Your task to perform on an android device: turn off location history Image 0: 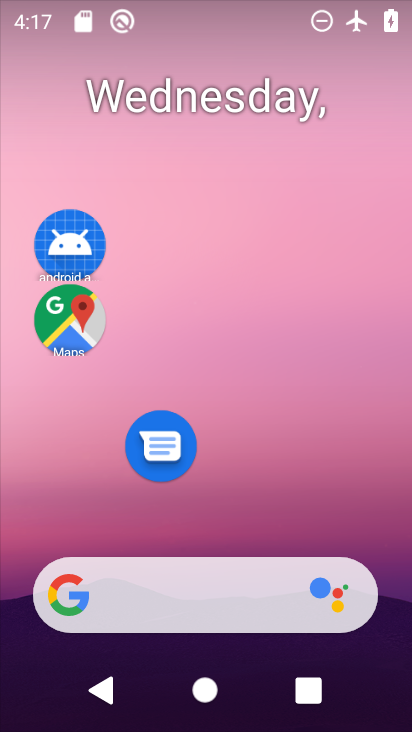
Step 0: drag from (265, 533) to (277, 46)
Your task to perform on an android device: turn off location history Image 1: 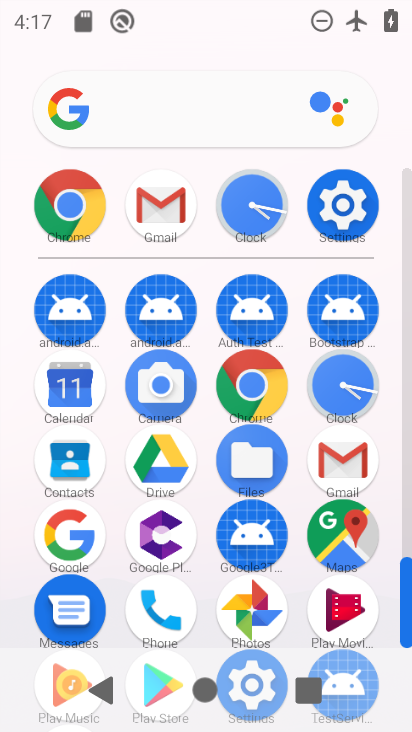
Step 1: click (356, 200)
Your task to perform on an android device: turn off location history Image 2: 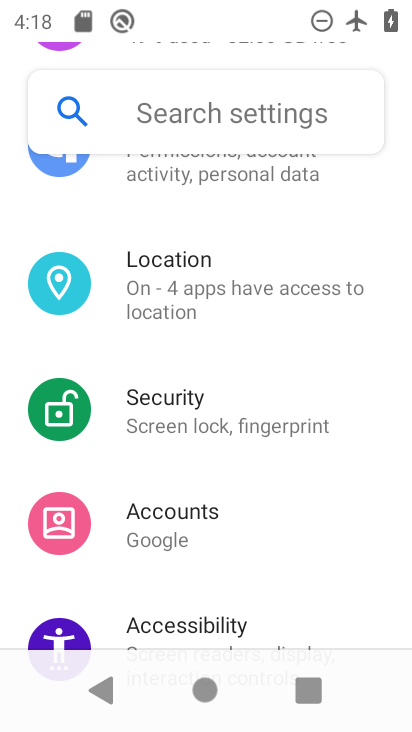
Step 2: drag from (196, 330) to (203, 550)
Your task to perform on an android device: turn off location history Image 3: 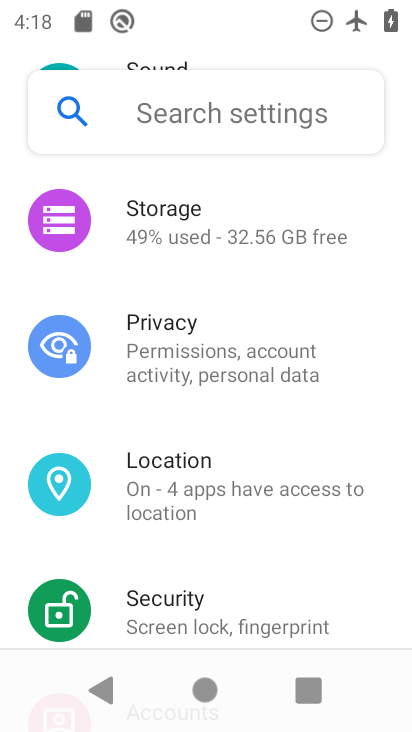
Step 3: drag from (181, 298) to (207, 550)
Your task to perform on an android device: turn off location history Image 4: 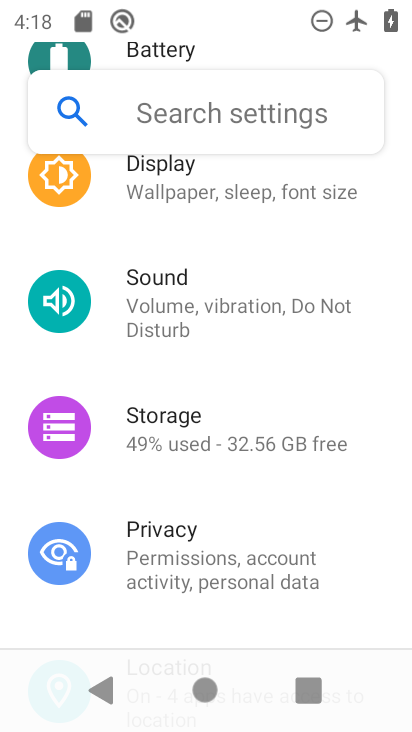
Step 4: drag from (172, 221) to (220, 548)
Your task to perform on an android device: turn off location history Image 5: 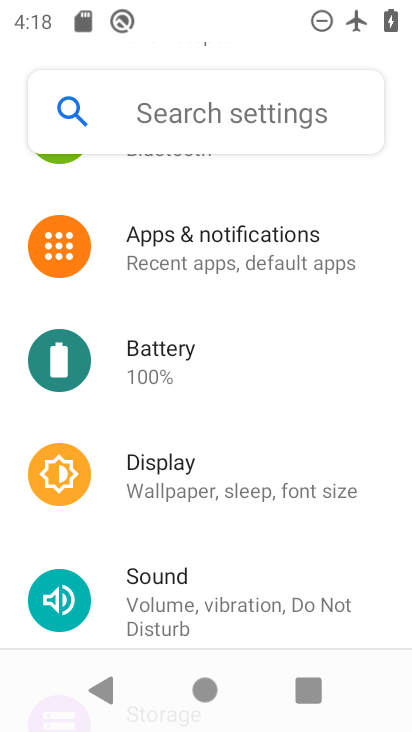
Step 5: drag from (237, 596) to (237, 383)
Your task to perform on an android device: turn off location history Image 6: 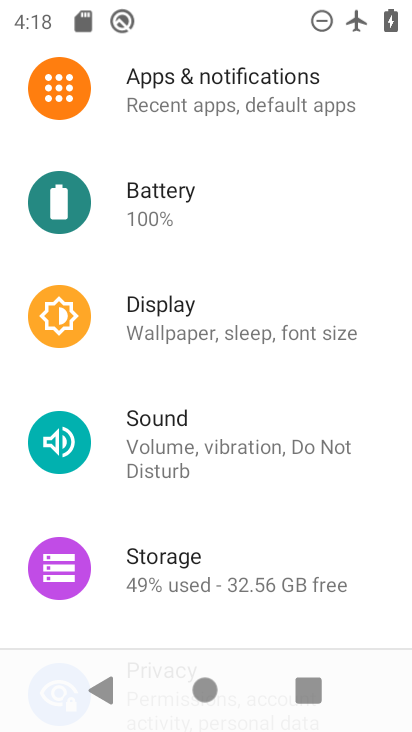
Step 6: drag from (254, 611) to (253, 400)
Your task to perform on an android device: turn off location history Image 7: 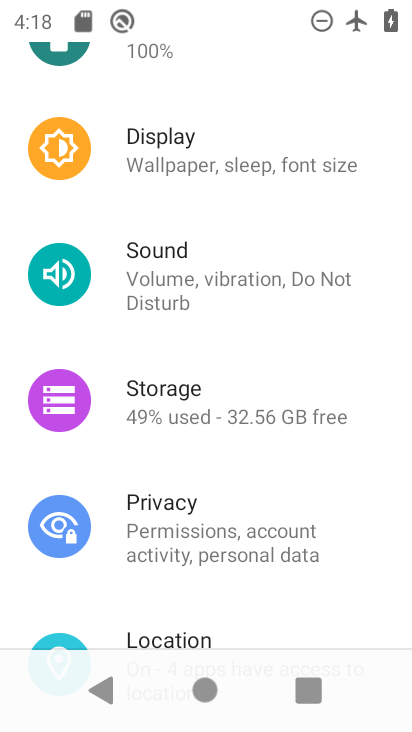
Step 7: click (232, 623)
Your task to perform on an android device: turn off location history Image 8: 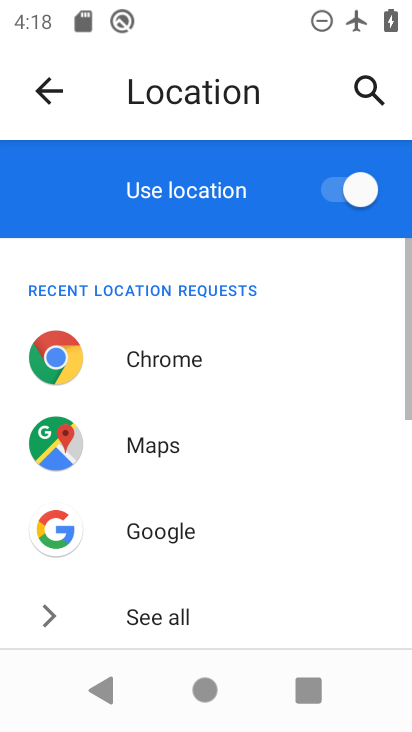
Step 8: drag from (261, 505) to (264, 313)
Your task to perform on an android device: turn off location history Image 9: 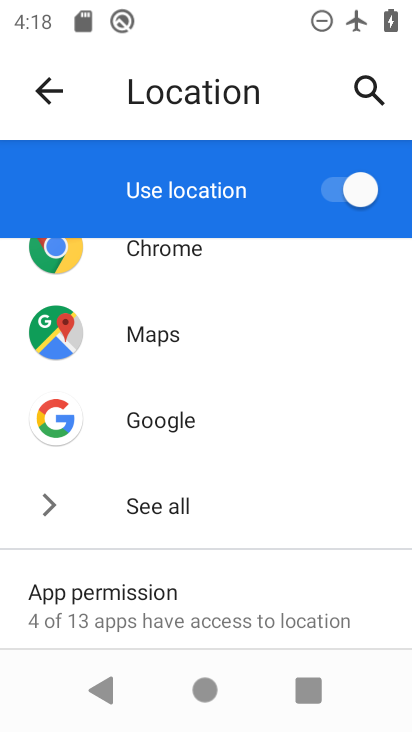
Step 9: drag from (245, 558) to (239, 343)
Your task to perform on an android device: turn off location history Image 10: 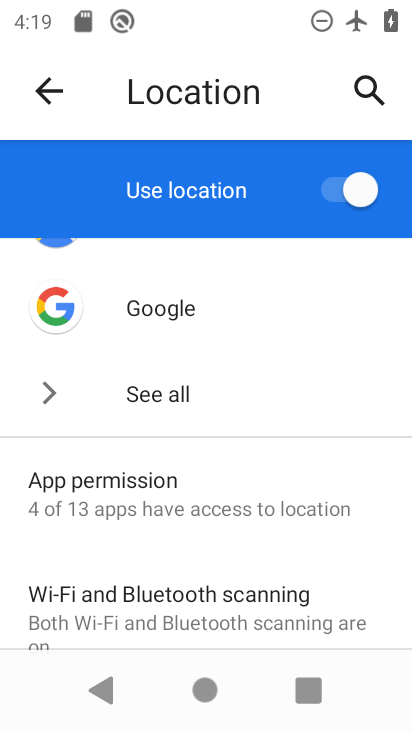
Step 10: drag from (179, 529) to (188, 133)
Your task to perform on an android device: turn off location history Image 11: 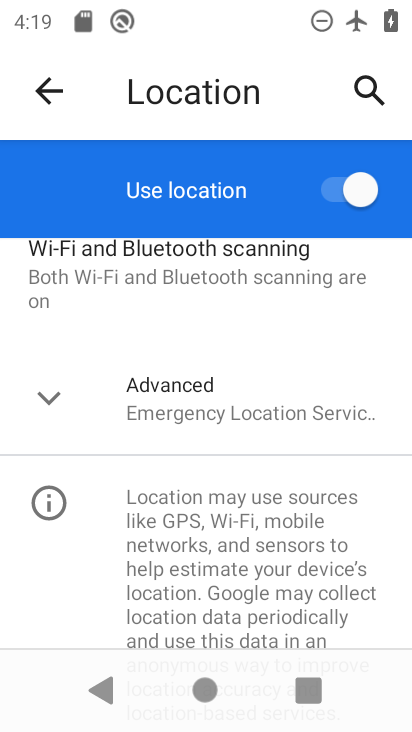
Step 11: click (229, 434)
Your task to perform on an android device: turn off location history Image 12: 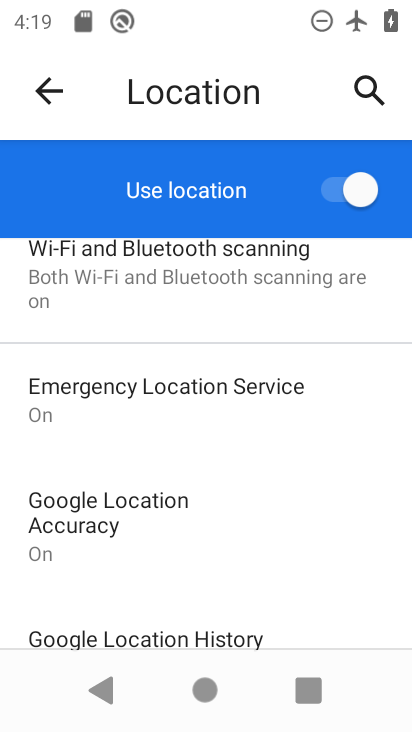
Step 12: click (241, 616)
Your task to perform on an android device: turn off location history Image 13: 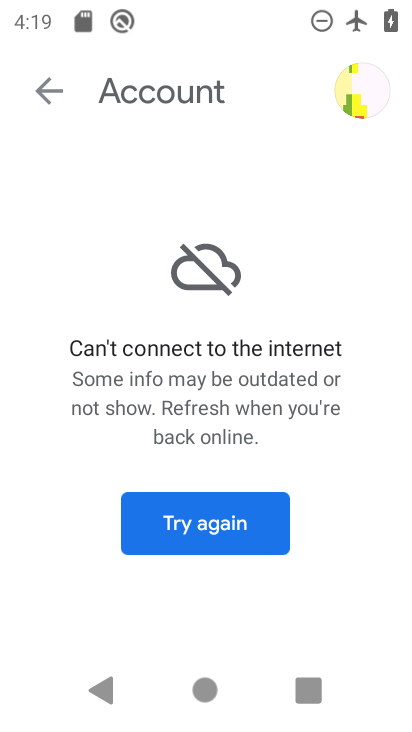
Step 13: task complete